Your task to perform on an android device: change the clock style Image 0: 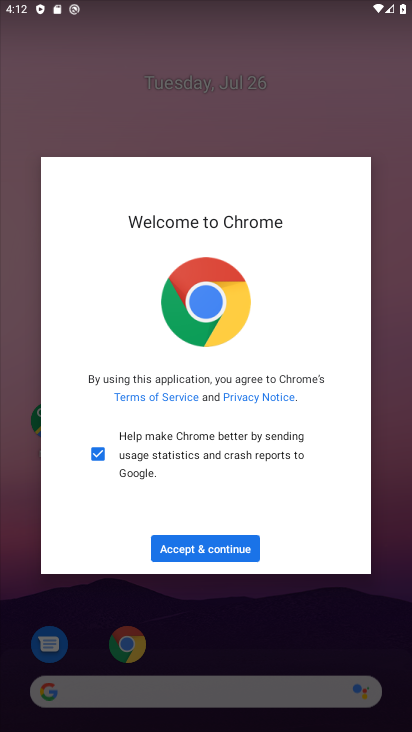
Step 0: click (216, 551)
Your task to perform on an android device: change the clock style Image 1: 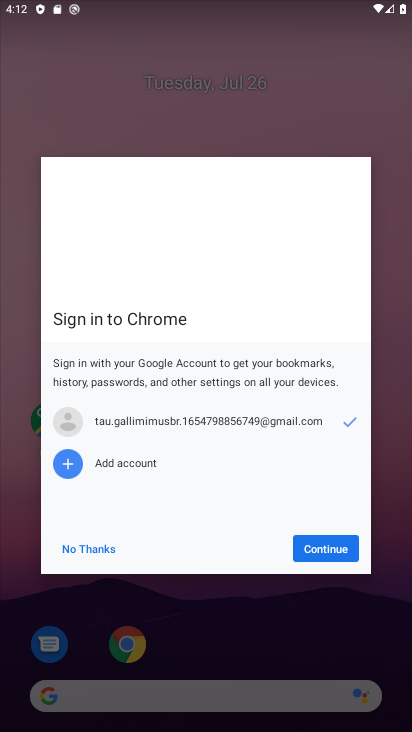
Step 1: click (306, 559)
Your task to perform on an android device: change the clock style Image 2: 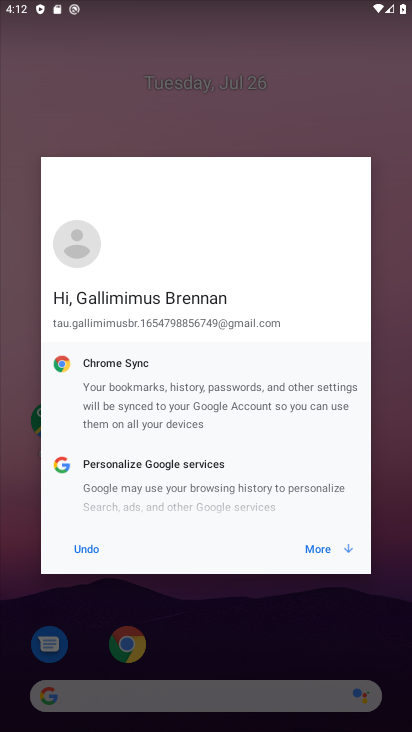
Step 2: click (322, 544)
Your task to perform on an android device: change the clock style Image 3: 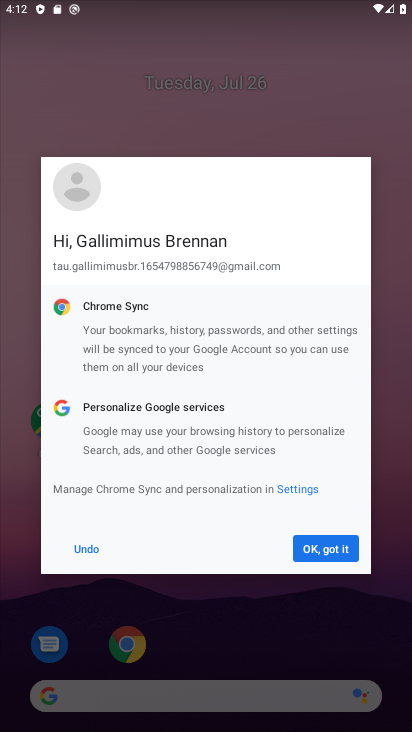
Step 3: click (324, 544)
Your task to perform on an android device: change the clock style Image 4: 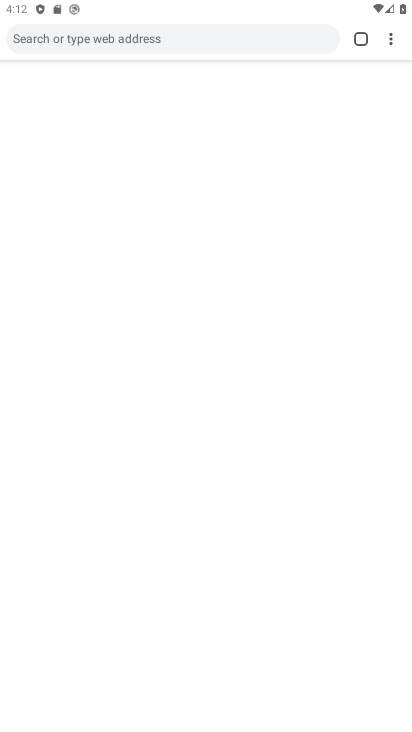
Step 4: press back button
Your task to perform on an android device: change the clock style Image 5: 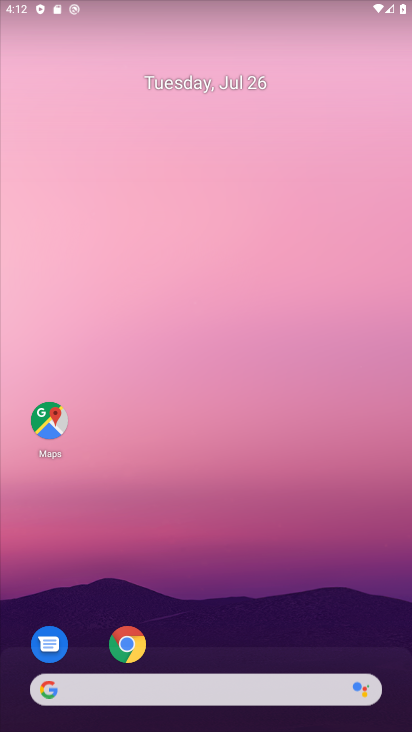
Step 5: press home button
Your task to perform on an android device: change the clock style Image 6: 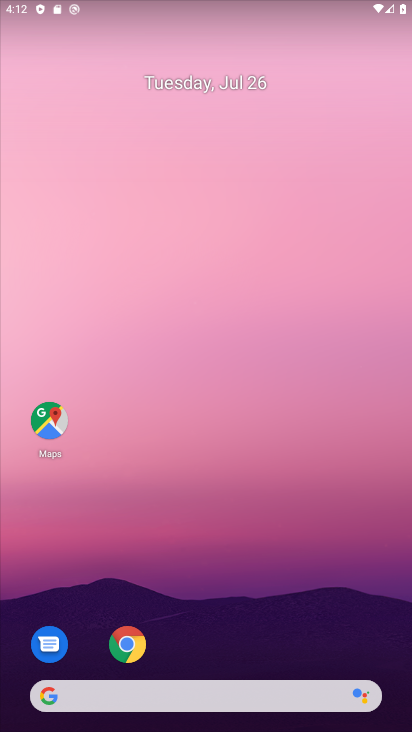
Step 6: drag from (215, 561) to (334, 42)
Your task to perform on an android device: change the clock style Image 7: 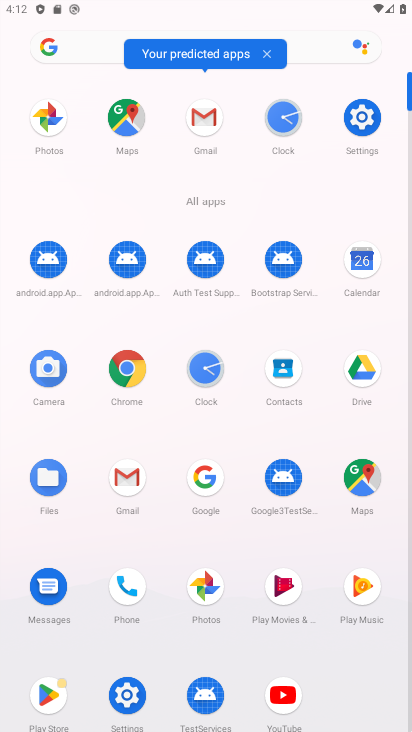
Step 7: click (206, 365)
Your task to perform on an android device: change the clock style Image 8: 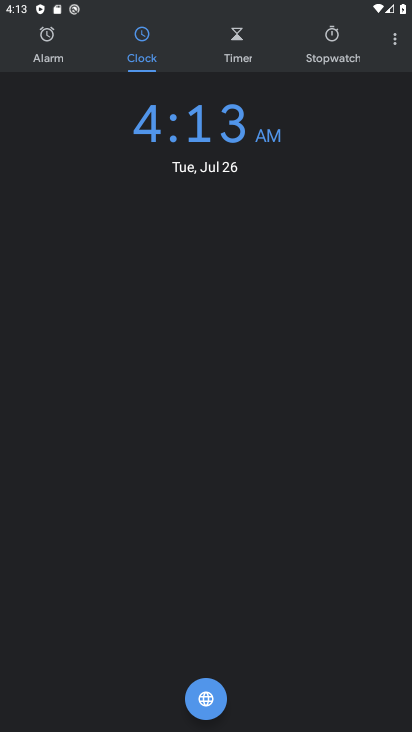
Step 8: click (395, 39)
Your task to perform on an android device: change the clock style Image 9: 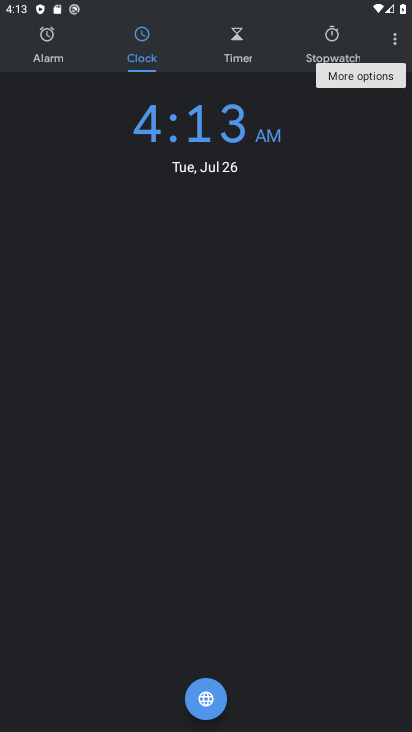
Step 9: click (394, 33)
Your task to perform on an android device: change the clock style Image 10: 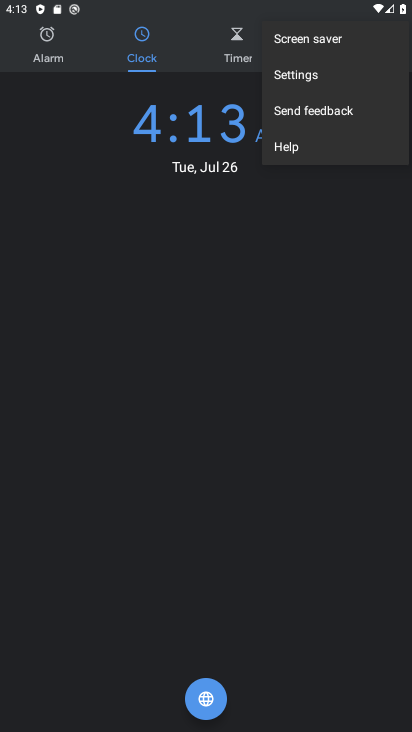
Step 10: click (314, 78)
Your task to perform on an android device: change the clock style Image 11: 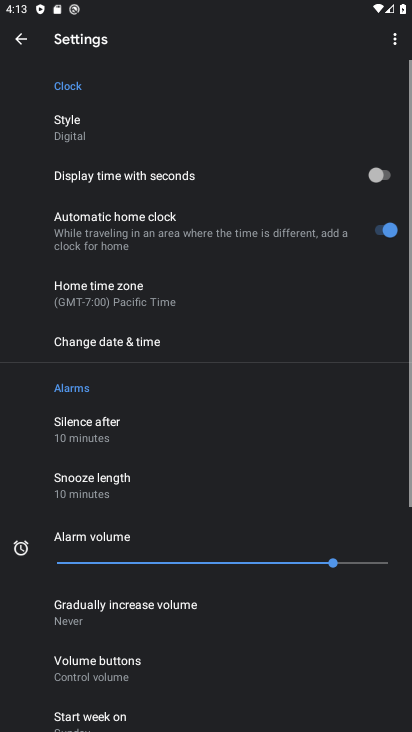
Step 11: click (87, 125)
Your task to perform on an android device: change the clock style Image 12: 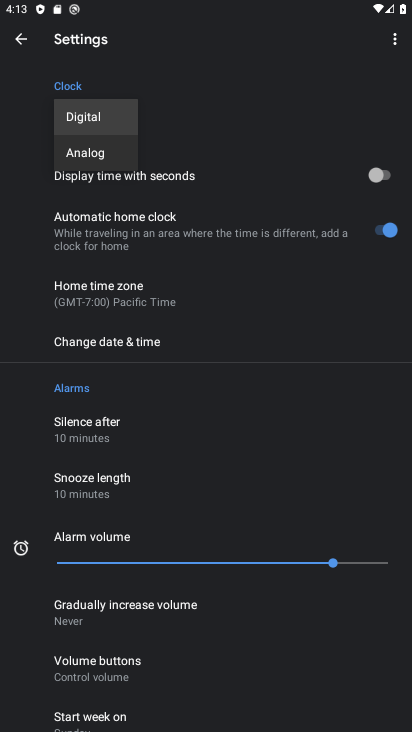
Step 12: click (94, 149)
Your task to perform on an android device: change the clock style Image 13: 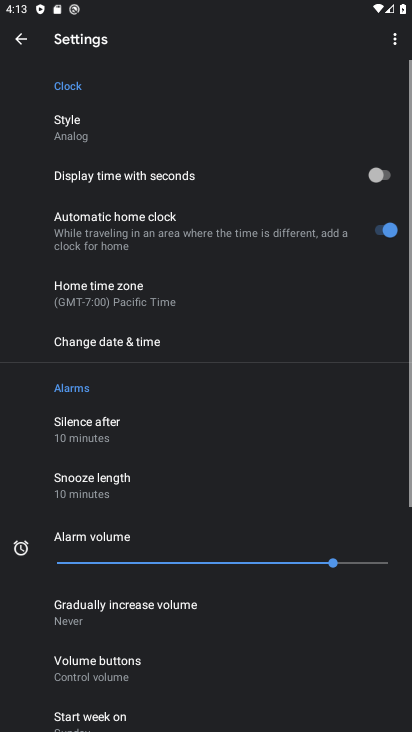
Step 13: task complete